Your task to perform on an android device: Turn off the flashlight Image 0: 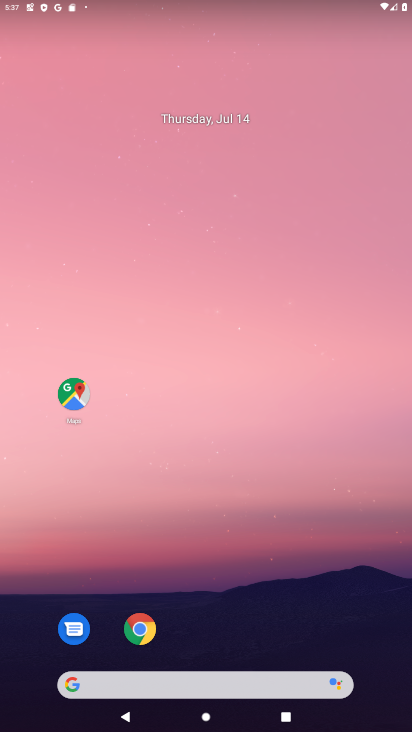
Step 0: drag from (255, 143) to (208, 604)
Your task to perform on an android device: Turn off the flashlight Image 1: 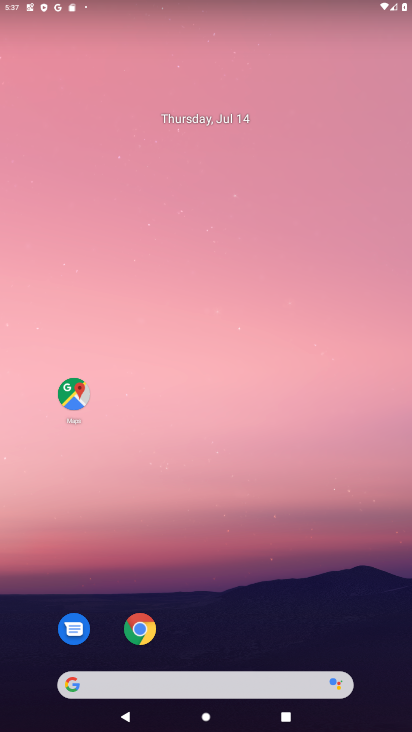
Step 1: click (139, 517)
Your task to perform on an android device: Turn off the flashlight Image 2: 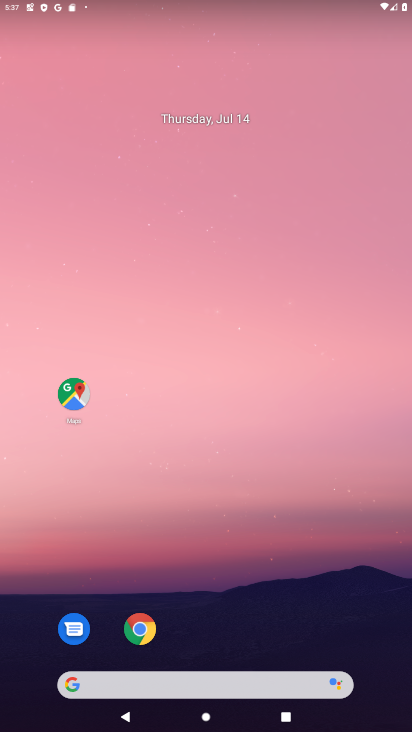
Step 2: task complete